Your task to perform on an android device: Search for Italian restaurants on Maps Image 0: 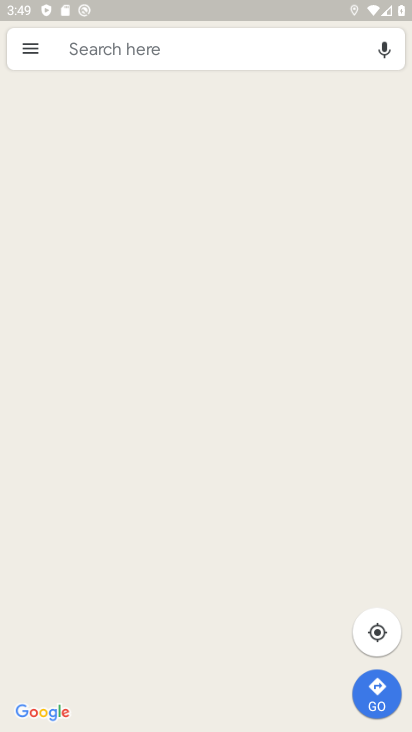
Step 0: press home button
Your task to perform on an android device: Search for Italian restaurants on Maps Image 1: 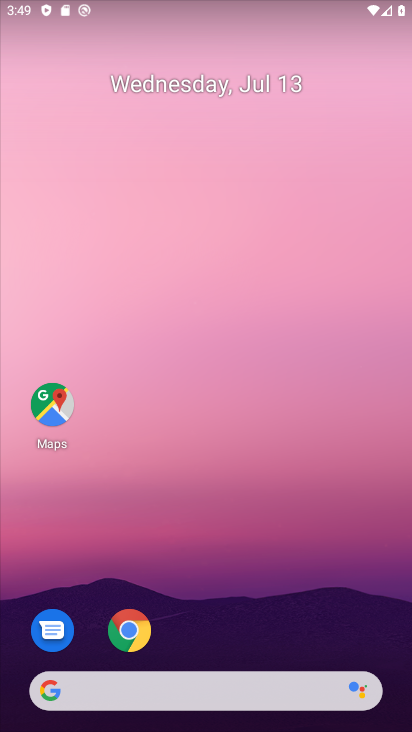
Step 1: click (49, 406)
Your task to perform on an android device: Search for Italian restaurants on Maps Image 2: 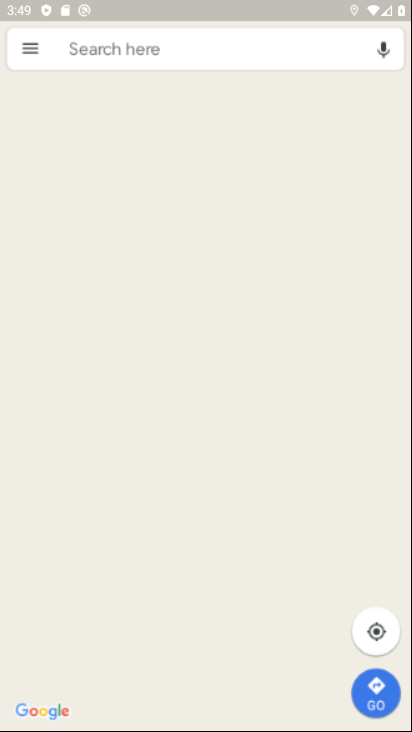
Step 2: click (147, 48)
Your task to perform on an android device: Search for Italian restaurants on Maps Image 3: 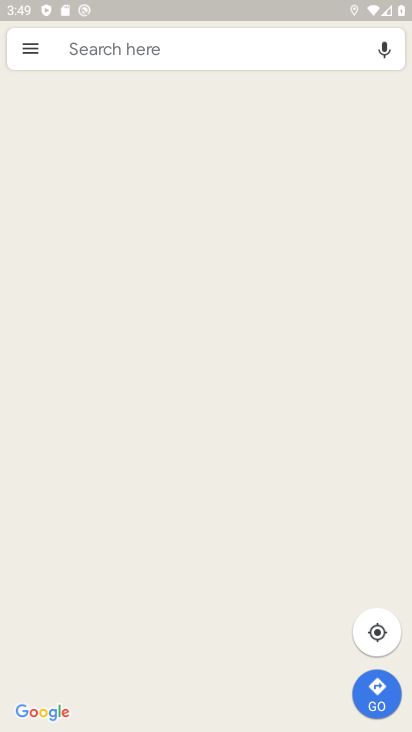
Step 3: click (157, 57)
Your task to perform on an android device: Search for Italian restaurants on Maps Image 4: 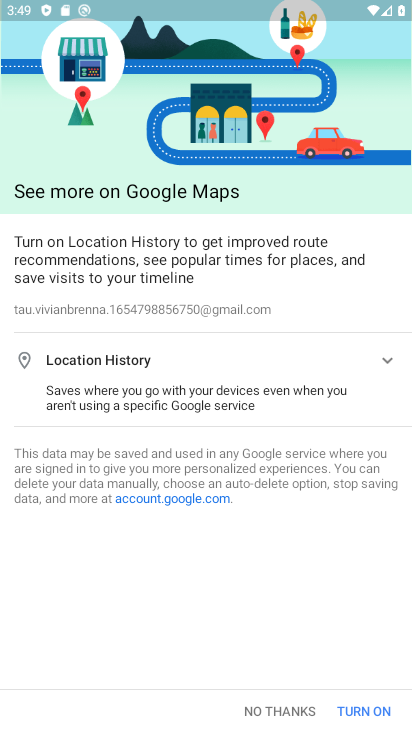
Step 4: type "italian res"
Your task to perform on an android device: Search for Italian restaurants on Maps Image 5: 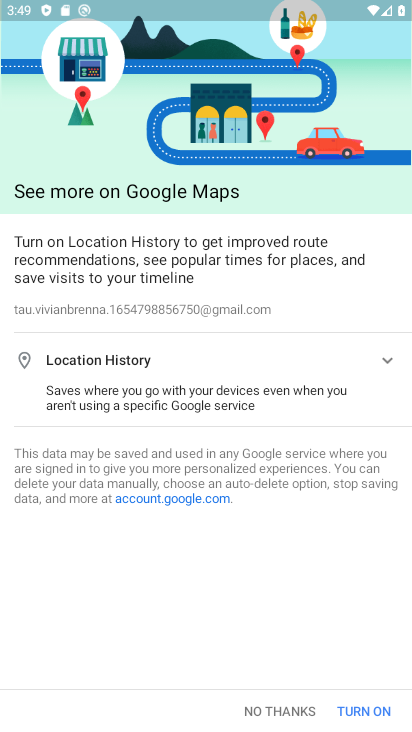
Step 5: click (270, 705)
Your task to perform on an android device: Search for Italian restaurants on Maps Image 6: 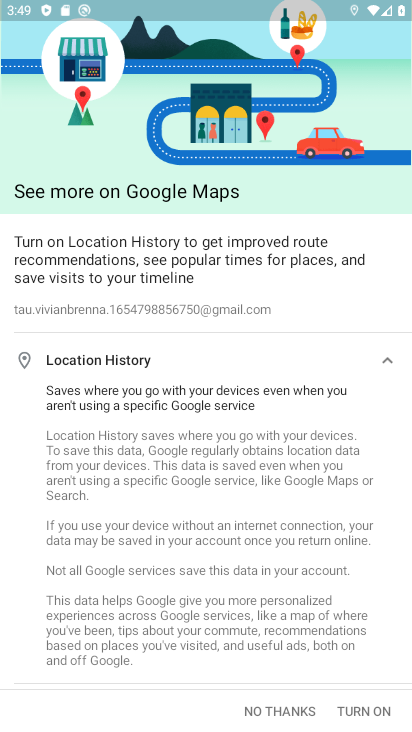
Step 6: click (270, 705)
Your task to perform on an android device: Search for Italian restaurants on Maps Image 7: 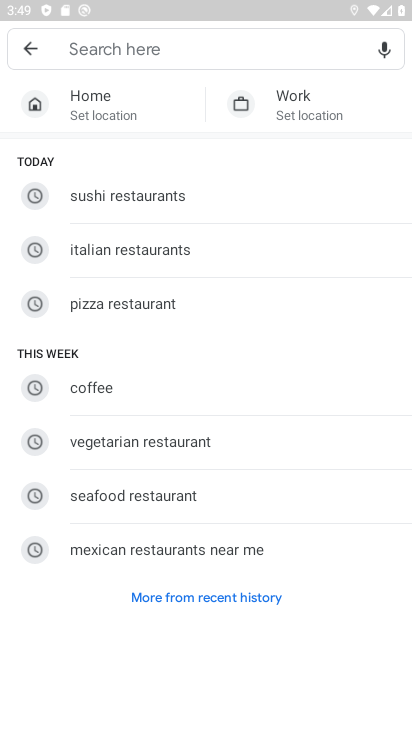
Step 7: click (317, 51)
Your task to perform on an android device: Search for Italian restaurants on Maps Image 8: 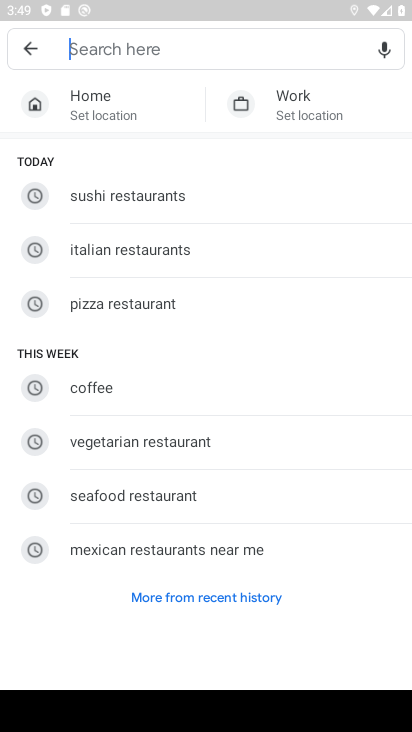
Step 8: type "italian restaurants"
Your task to perform on an android device: Search for Italian restaurants on Maps Image 9: 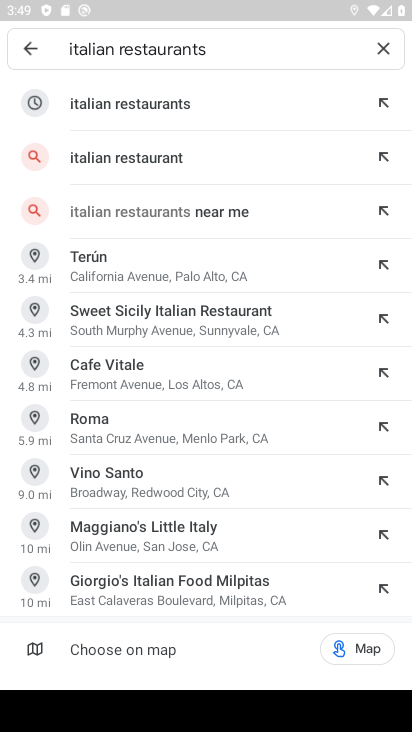
Step 9: click (135, 106)
Your task to perform on an android device: Search for Italian restaurants on Maps Image 10: 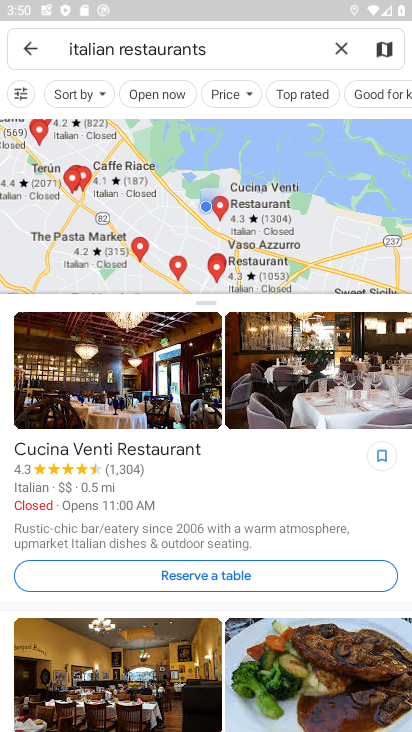
Step 10: task complete